Your task to perform on an android device: Open calendar and show me the first week of next month Image 0: 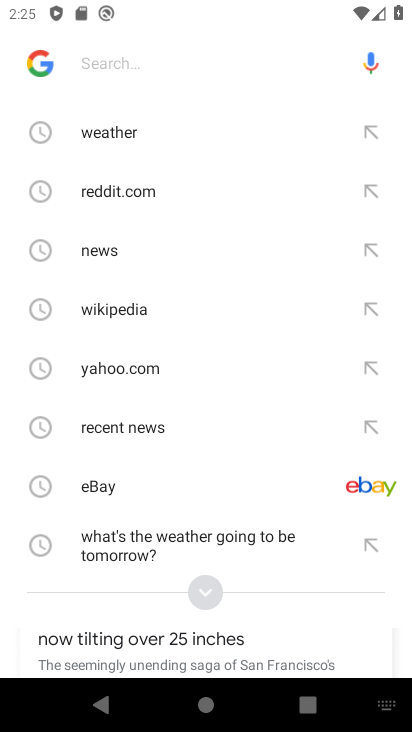
Step 0: press home button
Your task to perform on an android device: Open calendar and show me the first week of next month Image 1: 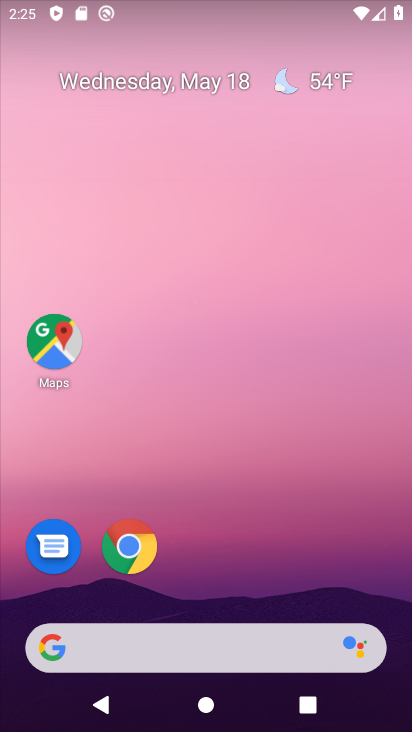
Step 1: drag from (266, 532) to (249, 61)
Your task to perform on an android device: Open calendar and show me the first week of next month Image 2: 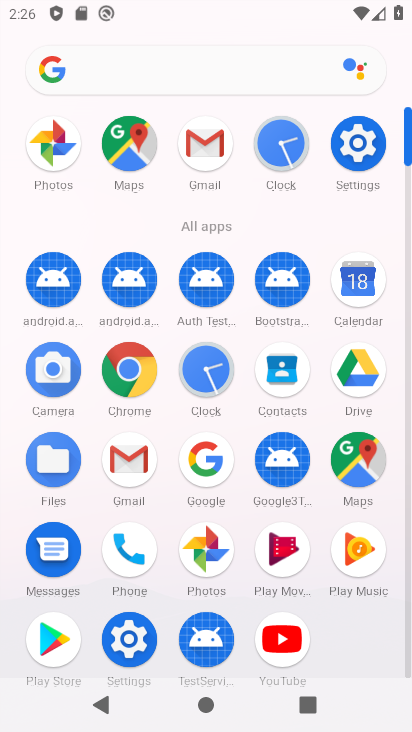
Step 2: click (347, 284)
Your task to perform on an android device: Open calendar and show me the first week of next month Image 3: 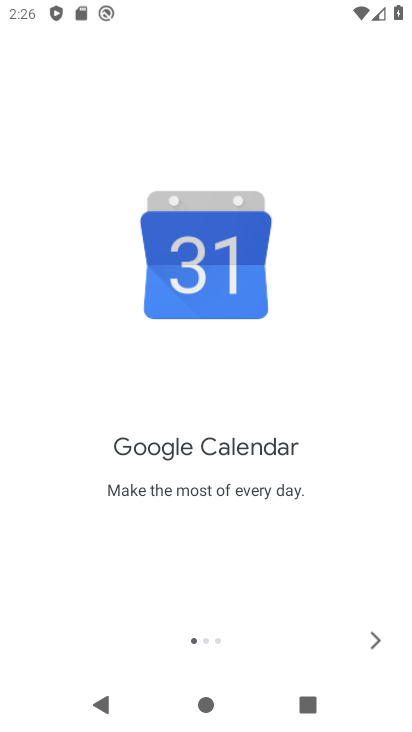
Step 3: click (377, 639)
Your task to perform on an android device: Open calendar and show me the first week of next month Image 4: 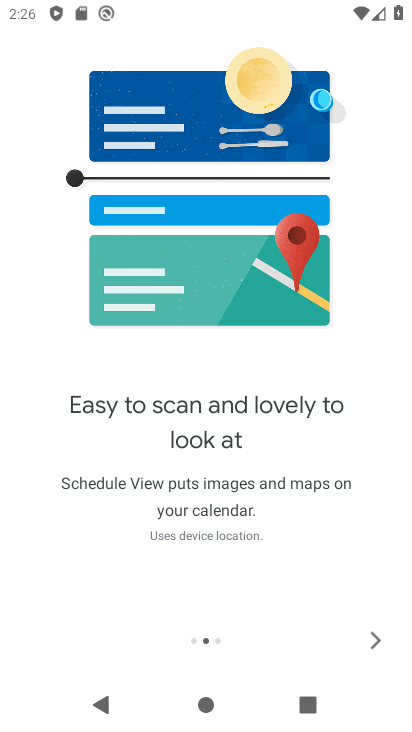
Step 4: click (373, 646)
Your task to perform on an android device: Open calendar and show me the first week of next month Image 5: 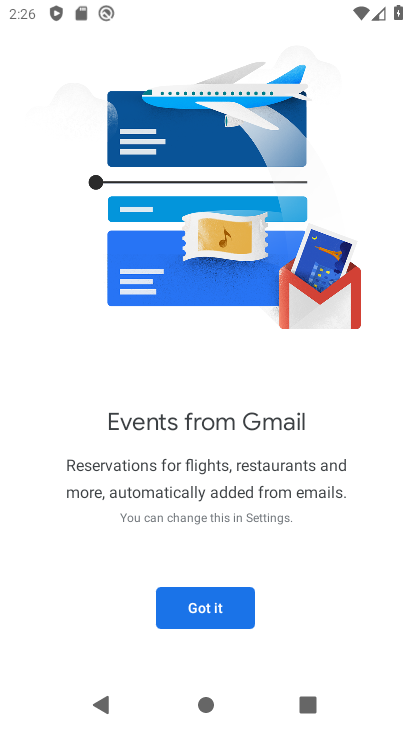
Step 5: click (218, 624)
Your task to perform on an android device: Open calendar and show me the first week of next month Image 6: 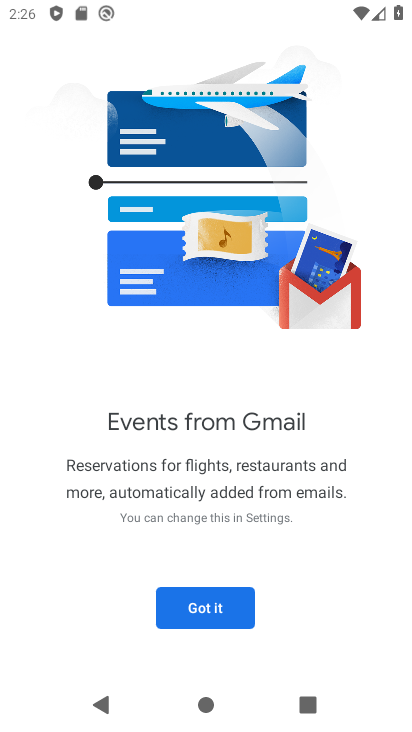
Step 6: click (218, 624)
Your task to perform on an android device: Open calendar and show me the first week of next month Image 7: 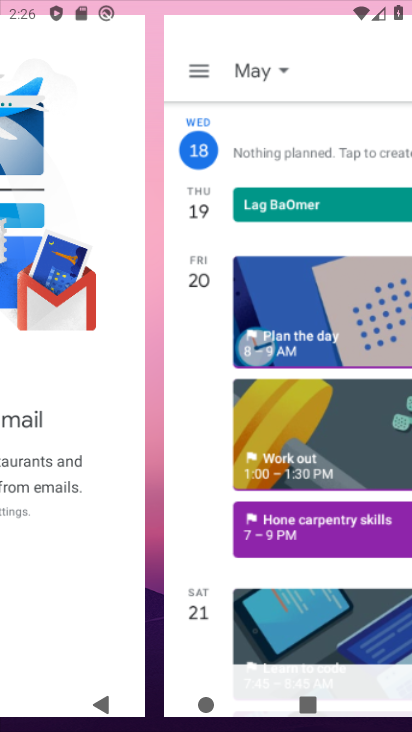
Step 7: click (218, 624)
Your task to perform on an android device: Open calendar and show me the first week of next month Image 8: 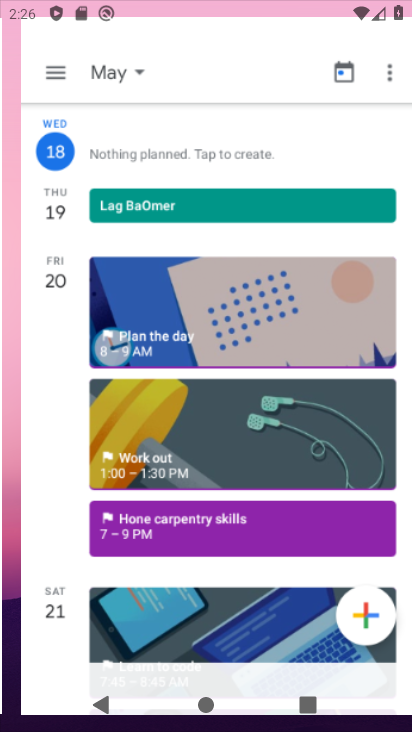
Step 8: click (218, 624)
Your task to perform on an android device: Open calendar and show me the first week of next month Image 9: 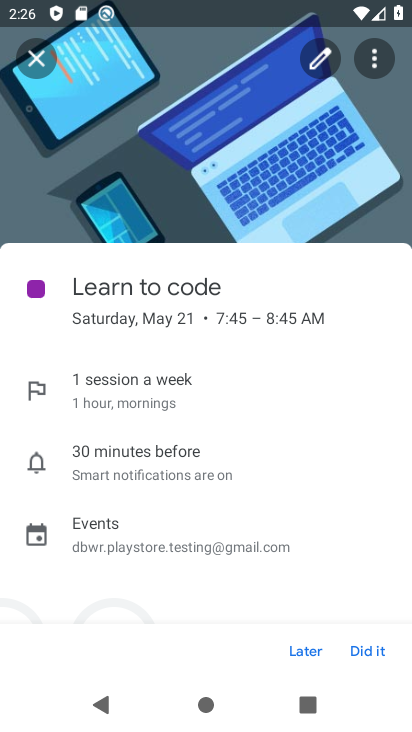
Step 9: click (43, 64)
Your task to perform on an android device: Open calendar and show me the first week of next month Image 10: 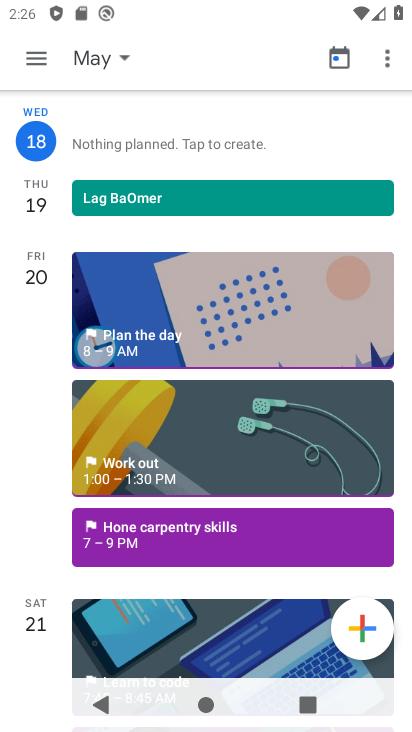
Step 10: press home button
Your task to perform on an android device: Open calendar and show me the first week of next month Image 11: 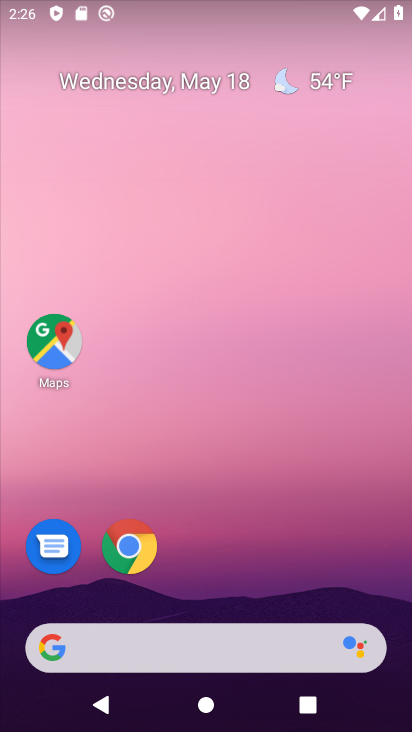
Step 11: drag from (202, 559) to (213, 180)
Your task to perform on an android device: Open calendar and show me the first week of next month Image 12: 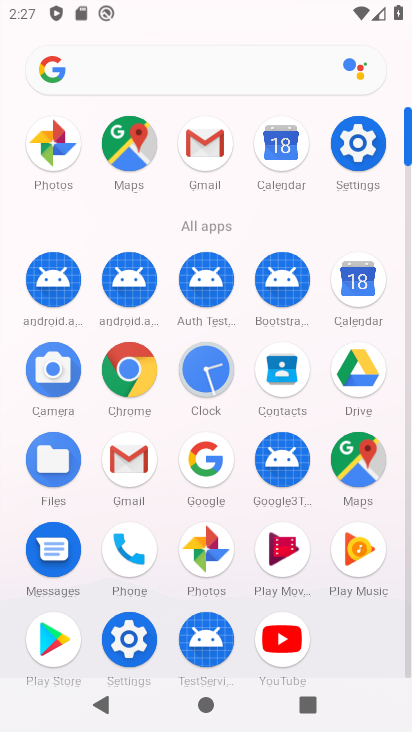
Step 12: click (369, 282)
Your task to perform on an android device: Open calendar and show me the first week of next month Image 13: 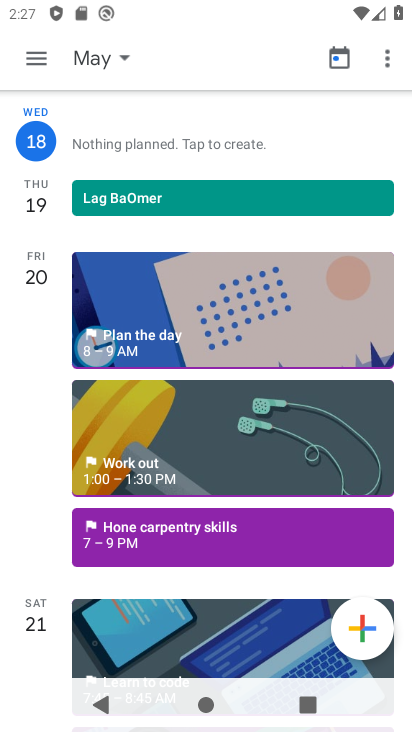
Step 13: click (132, 49)
Your task to perform on an android device: Open calendar and show me the first week of next month Image 14: 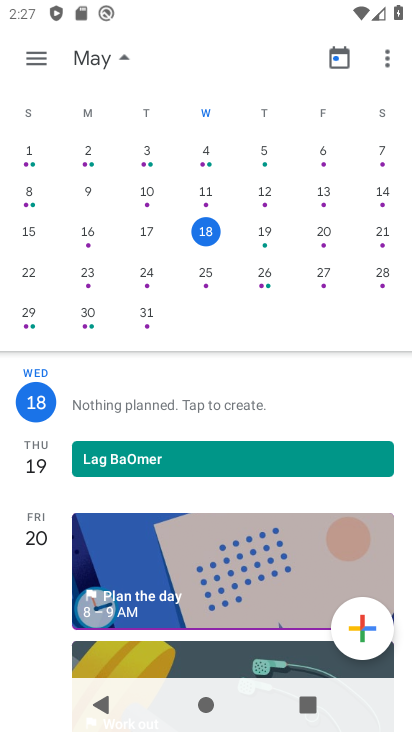
Step 14: task complete